Your task to perform on an android device: Open Android settings Image 0: 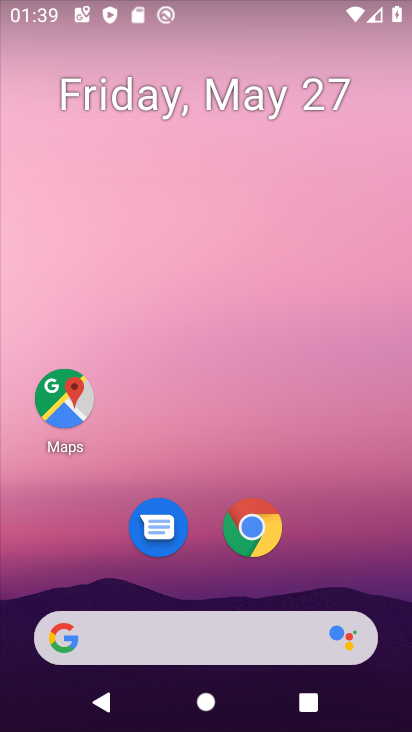
Step 0: drag from (247, 313) to (252, 279)
Your task to perform on an android device: Open Android settings Image 1: 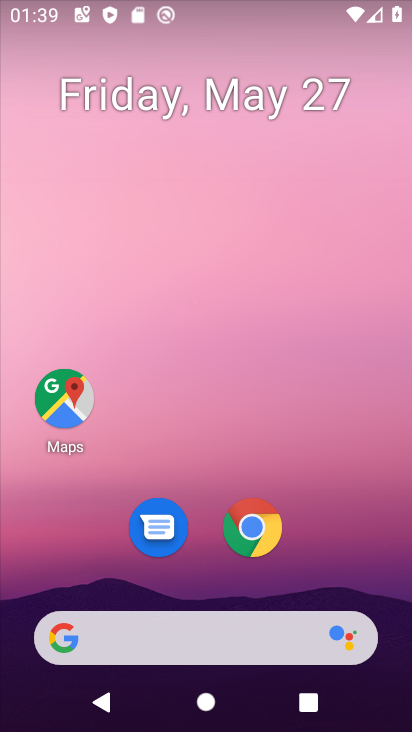
Step 1: drag from (188, 483) to (145, 11)
Your task to perform on an android device: Open Android settings Image 2: 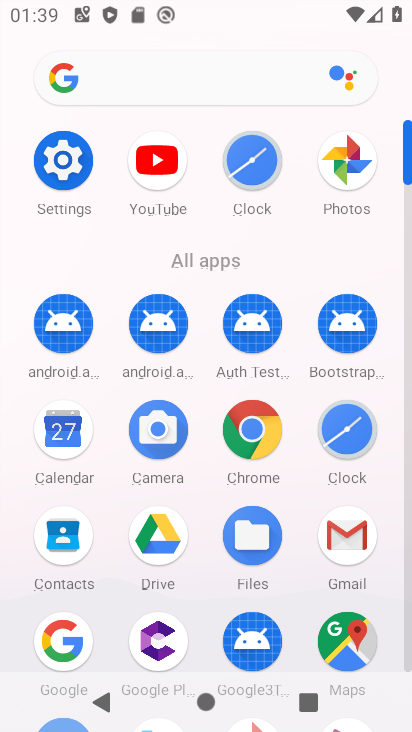
Step 2: click (57, 156)
Your task to perform on an android device: Open Android settings Image 3: 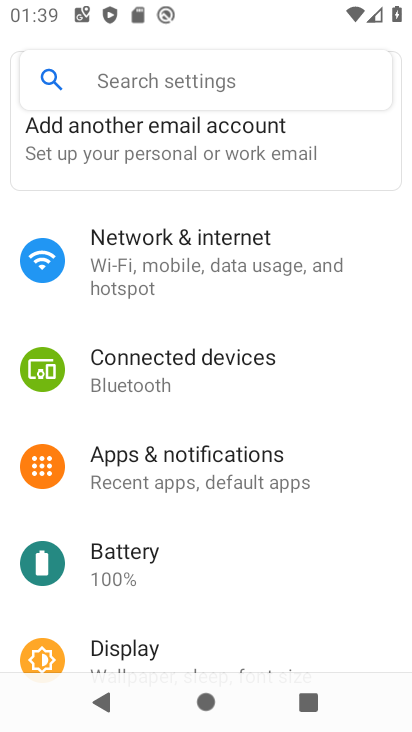
Step 3: drag from (208, 564) to (285, 663)
Your task to perform on an android device: Open Android settings Image 4: 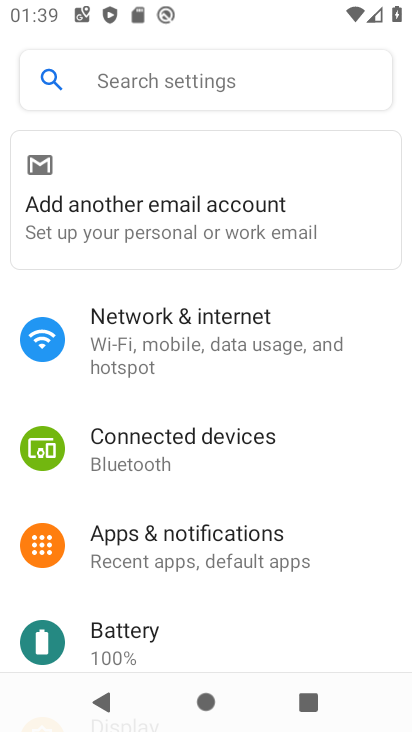
Step 4: click (186, 339)
Your task to perform on an android device: Open Android settings Image 5: 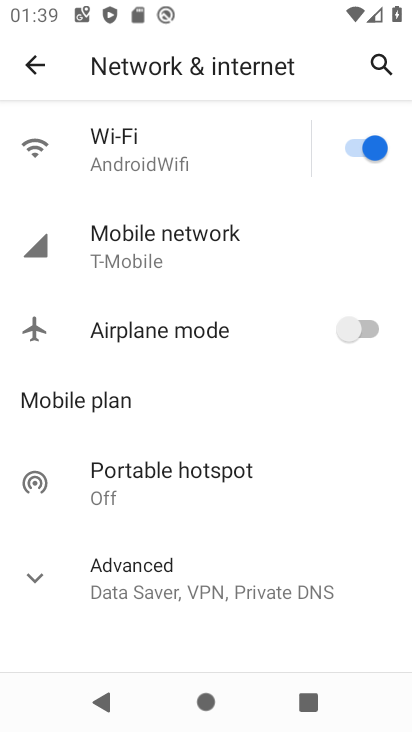
Step 5: task complete